Your task to perform on an android device: empty trash in the gmail app Image 0: 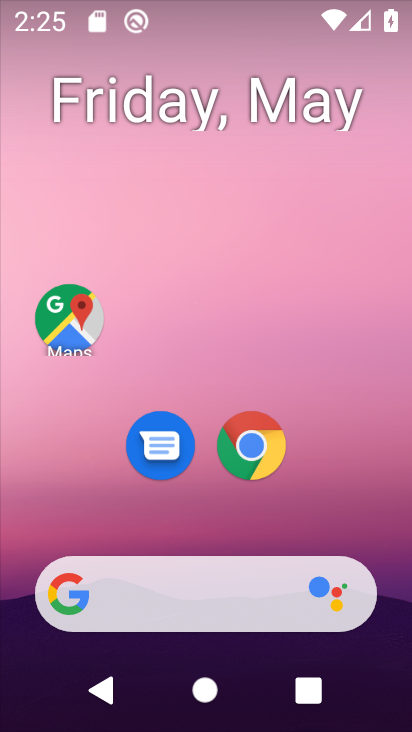
Step 0: click (257, 151)
Your task to perform on an android device: empty trash in the gmail app Image 1: 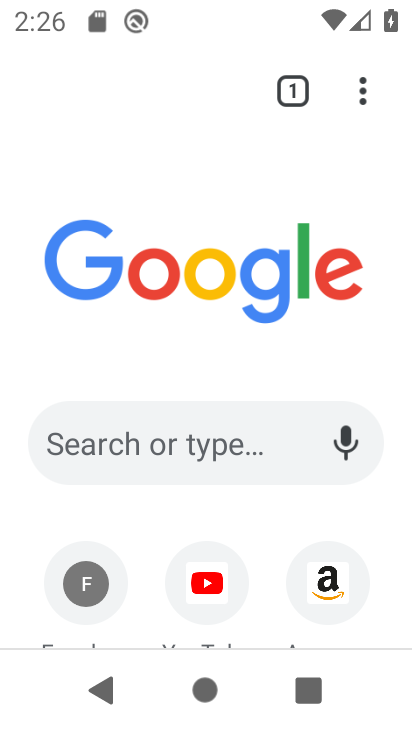
Step 1: press home button
Your task to perform on an android device: empty trash in the gmail app Image 2: 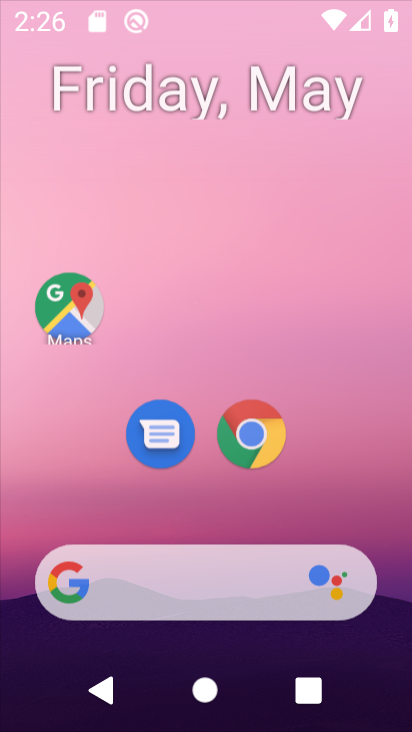
Step 2: drag from (169, 528) to (265, 87)
Your task to perform on an android device: empty trash in the gmail app Image 3: 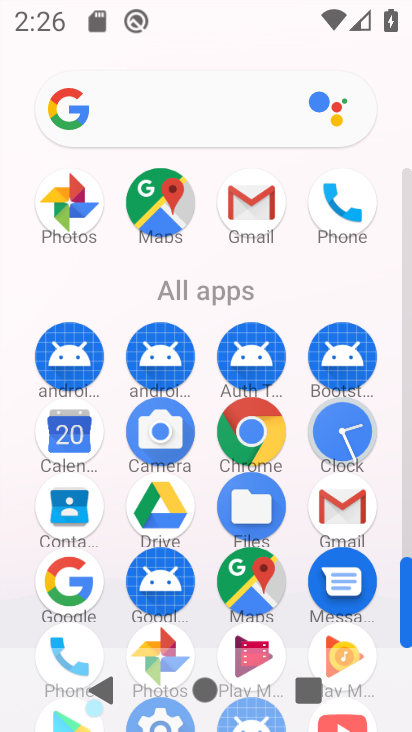
Step 3: click (321, 500)
Your task to perform on an android device: empty trash in the gmail app Image 4: 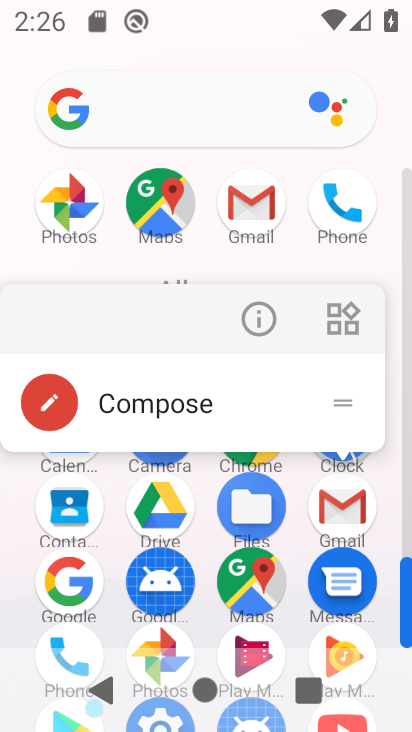
Step 4: click (259, 318)
Your task to perform on an android device: empty trash in the gmail app Image 5: 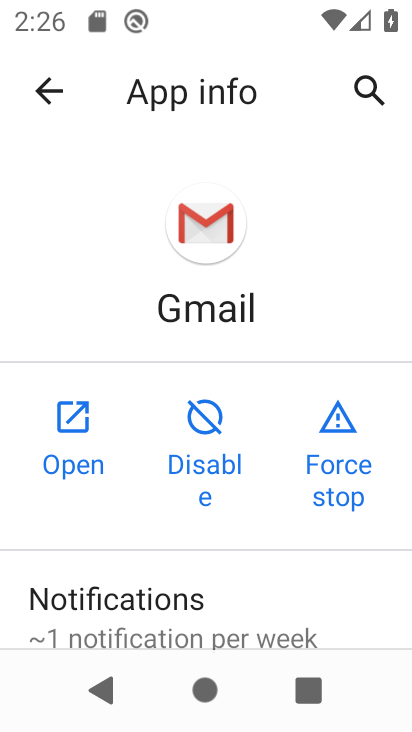
Step 5: click (79, 449)
Your task to perform on an android device: empty trash in the gmail app Image 6: 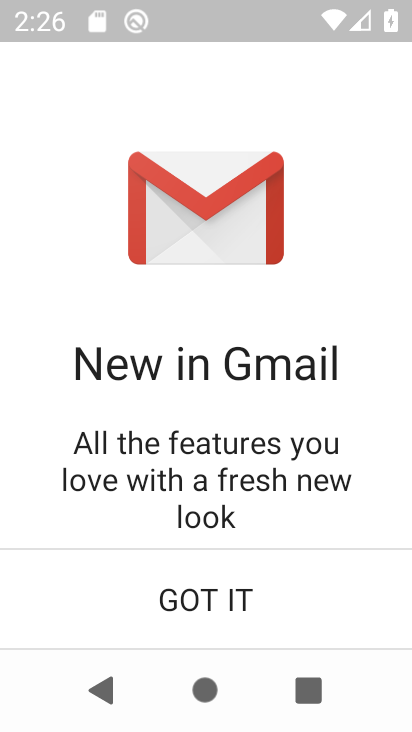
Step 6: drag from (212, 528) to (265, 319)
Your task to perform on an android device: empty trash in the gmail app Image 7: 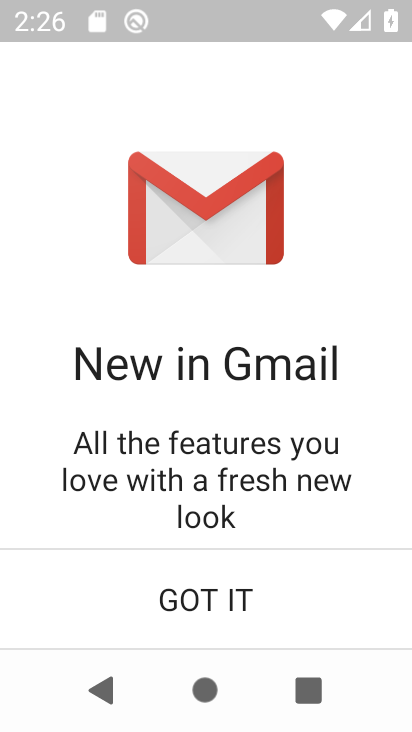
Step 7: drag from (187, 532) to (223, 432)
Your task to perform on an android device: empty trash in the gmail app Image 8: 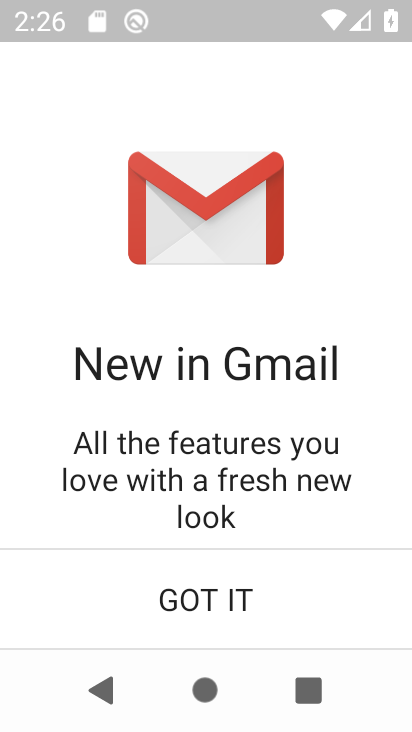
Step 8: click (185, 612)
Your task to perform on an android device: empty trash in the gmail app Image 9: 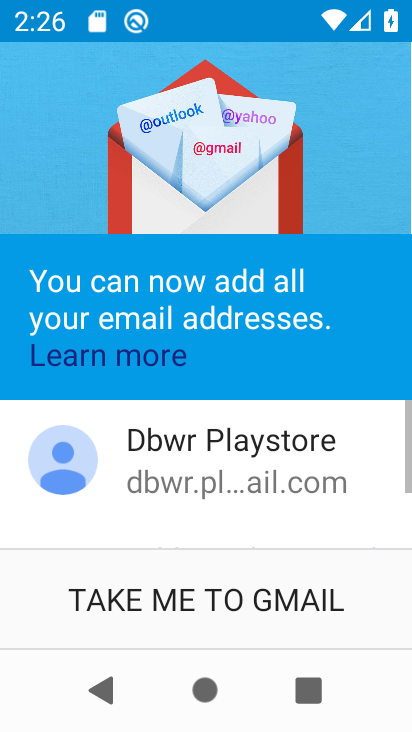
Step 9: click (231, 635)
Your task to perform on an android device: empty trash in the gmail app Image 10: 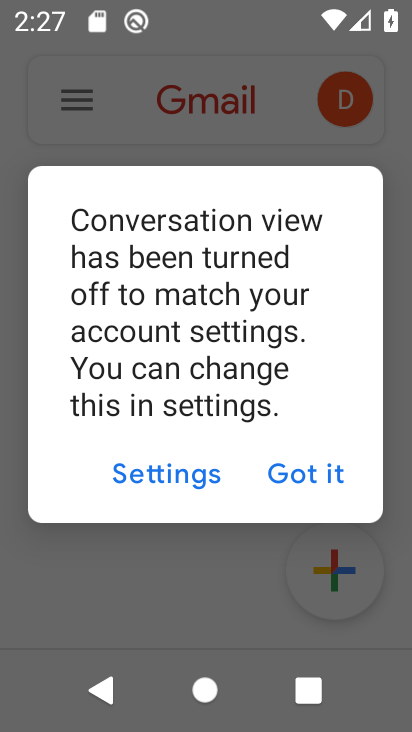
Step 10: click (299, 468)
Your task to perform on an android device: empty trash in the gmail app Image 11: 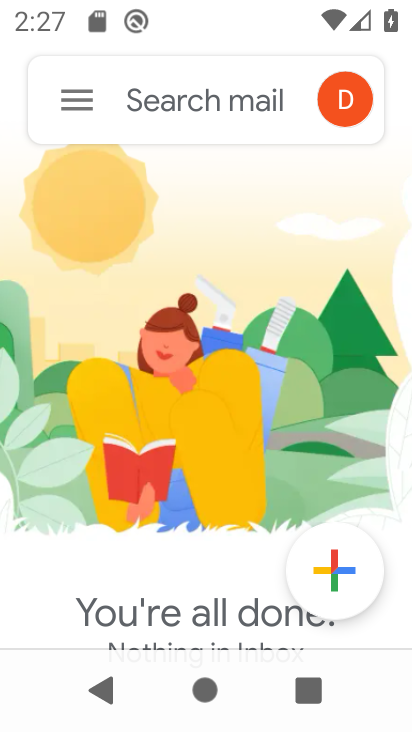
Step 11: click (99, 100)
Your task to perform on an android device: empty trash in the gmail app Image 12: 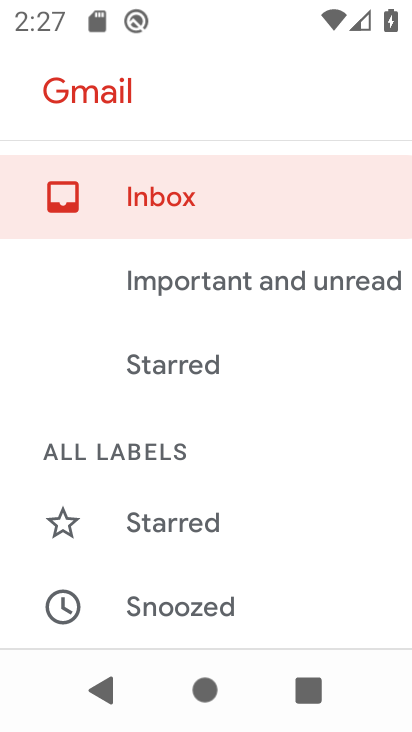
Step 12: drag from (214, 501) to (317, 33)
Your task to perform on an android device: empty trash in the gmail app Image 13: 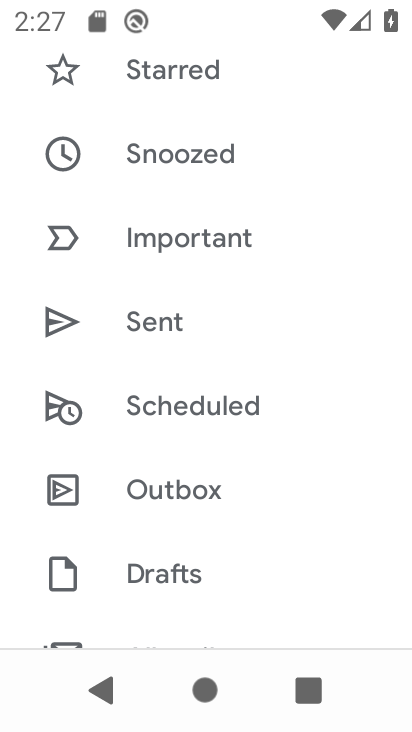
Step 13: drag from (203, 541) to (244, 130)
Your task to perform on an android device: empty trash in the gmail app Image 14: 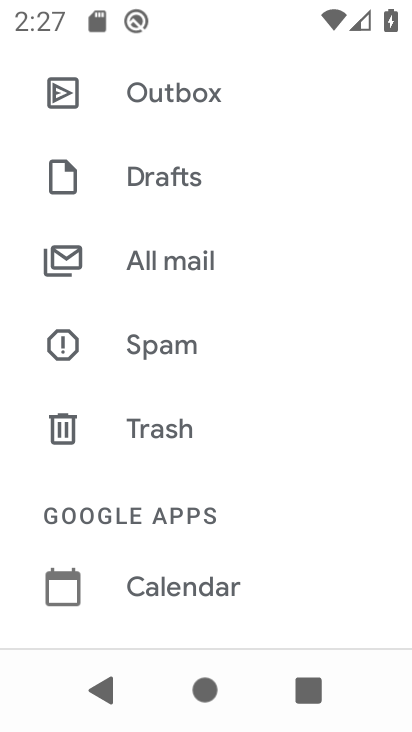
Step 14: click (144, 448)
Your task to perform on an android device: empty trash in the gmail app Image 15: 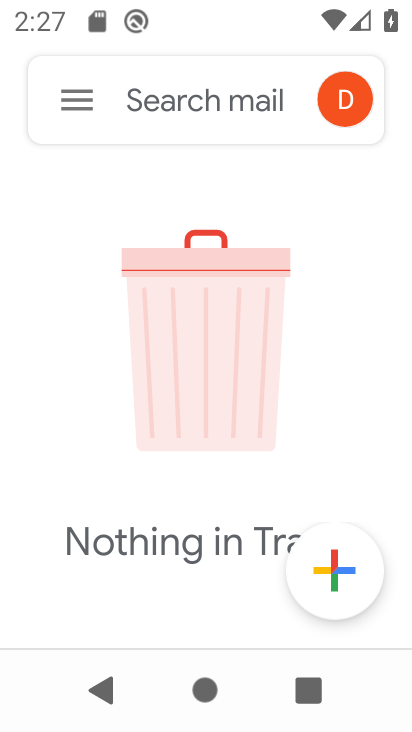
Step 15: task complete